Your task to perform on an android device: open chrome privacy settings Image 0: 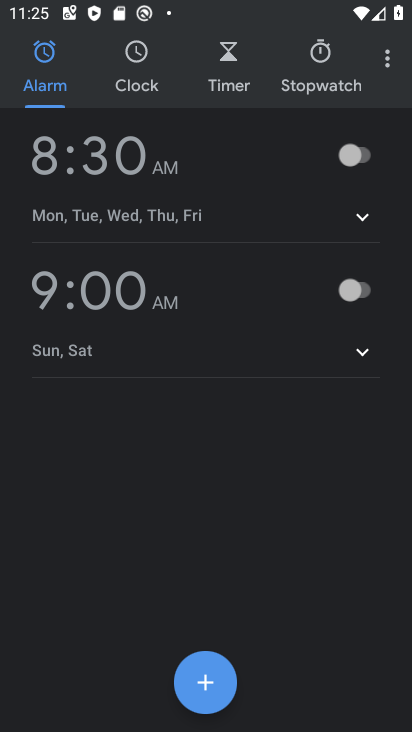
Step 0: press home button
Your task to perform on an android device: open chrome privacy settings Image 1: 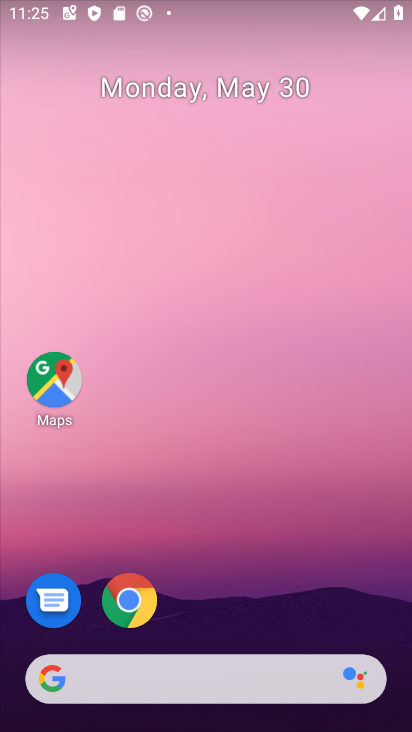
Step 1: click (125, 601)
Your task to perform on an android device: open chrome privacy settings Image 2: 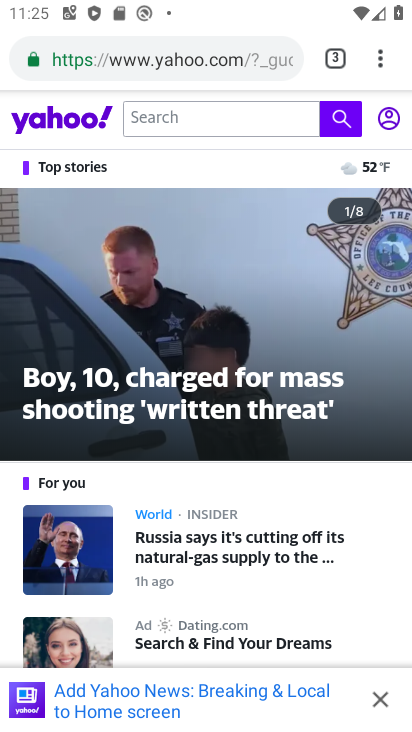
Step 2: click (380, 64)
Your task to perform on an android device: open chrome privacy settings Image 3: 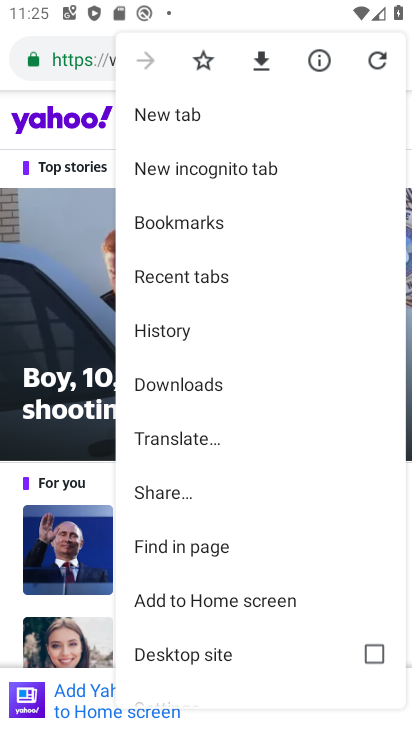
Step 3: drag from (184, 659) to (182, 180)
Your task to perform on an android device: open chrome privacy settings Image 4: 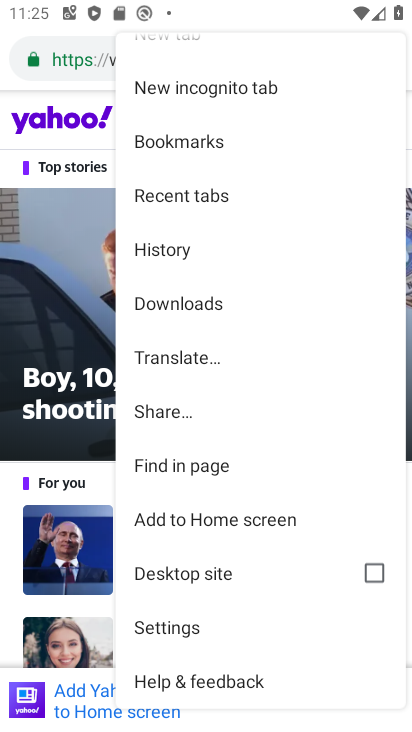
Step 4: click (159, 629)
Your task to perform on an android device: open chrome privacy settings Image 5: 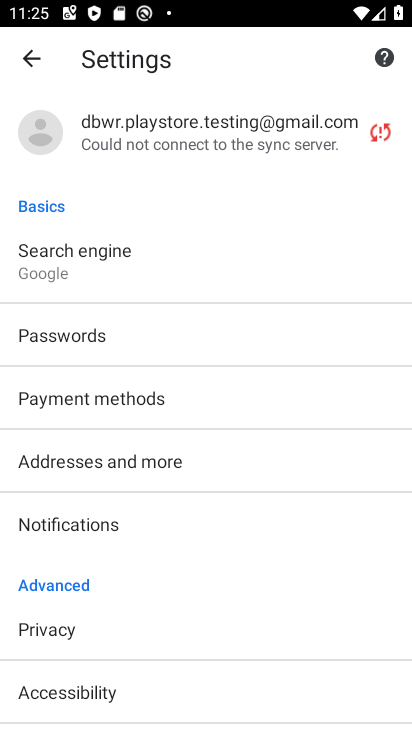
Step 5: click (62, 627)
Your task to perform on an android device: open chrome privacy settings Image 6: 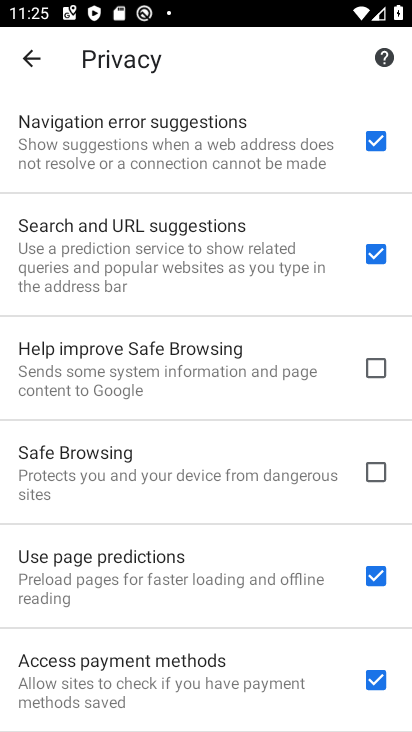
Step 6: task complete